Your task to perform on an android device: Show me recent news Image 0: 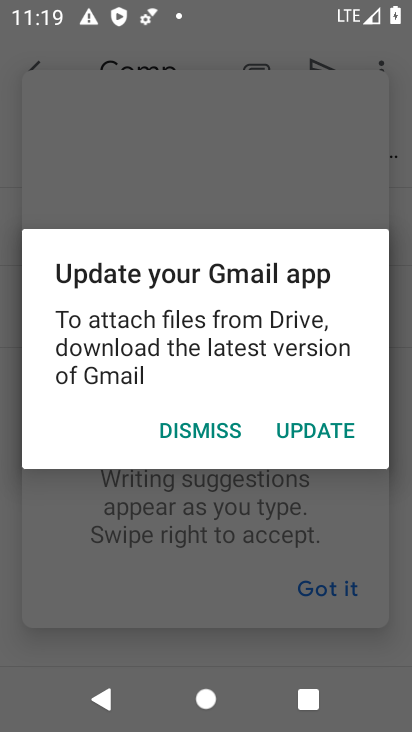
Step 0: press home button
Your task to perform on an android device: Show me recent news Image 1: 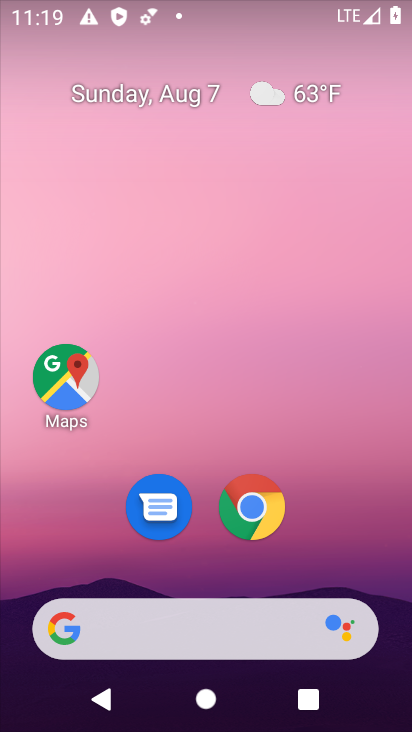
Step 1: task complete